Your task to perform on an android device: check storage Image 0: 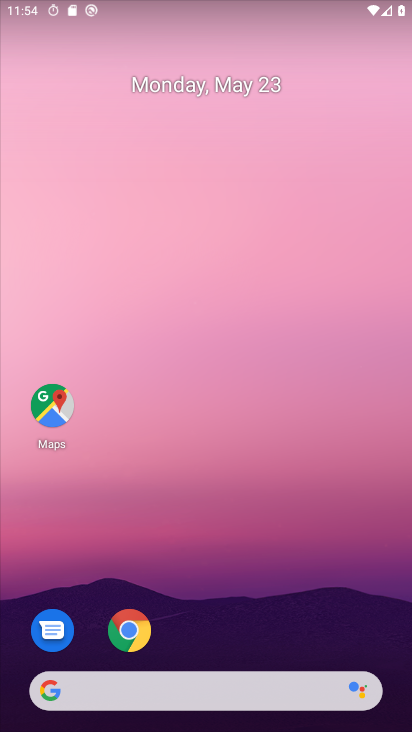
Step 0: drag from (232, 625) to (227, 1)
Your task to perform on an android device: check storage Image 1: 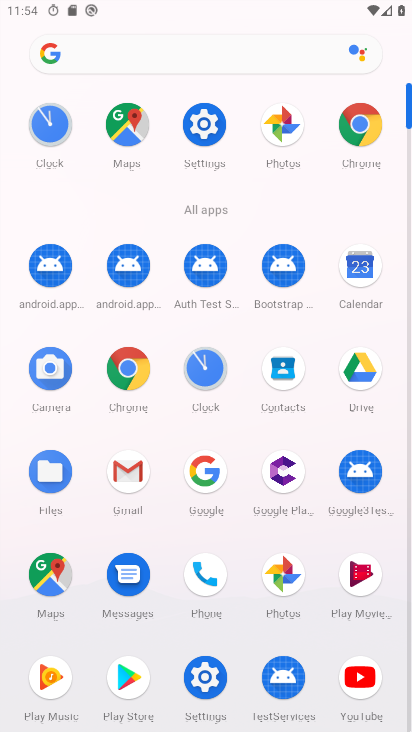
Step 1: click (215, 683)
Your task to perform on an android device: check storage Image 2: 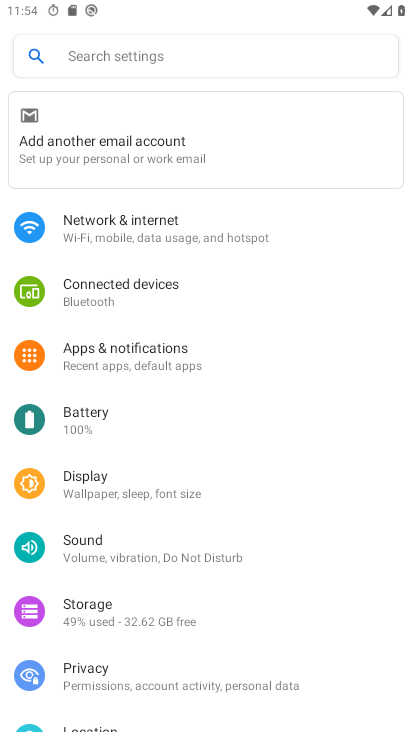
Step 2: click (128, 608)
Your task to perform on an android device: check storage Image 3: 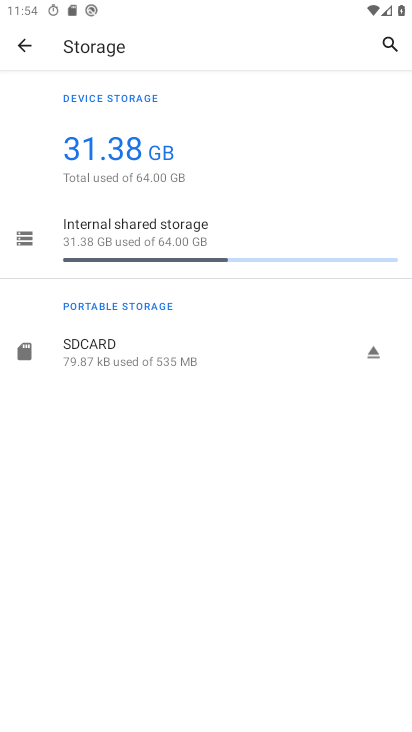
Step 3: click (136, 242)
Your task to perform on an android device: check storage Image 4: 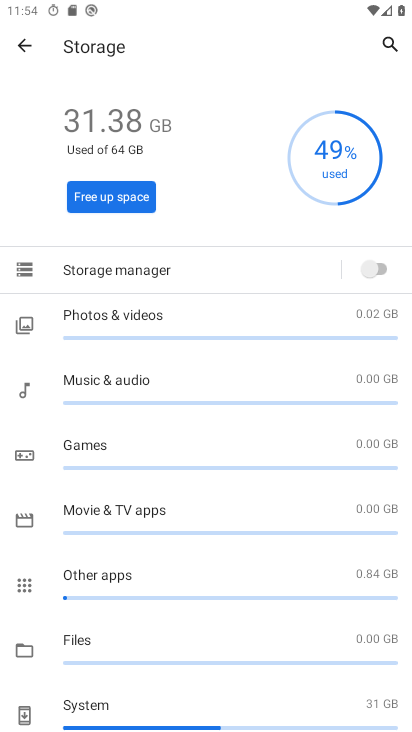
Step 4: task complete